Your task to perform on an android device: turn off smart reply in the gmail app Image 0: 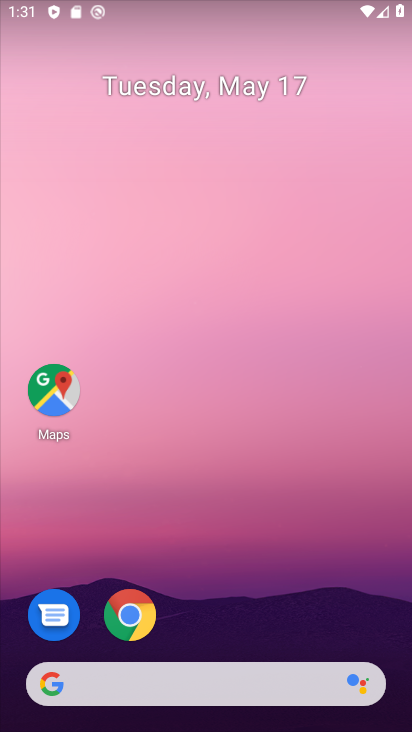
Step 0: drag from (259, 628) to (224, 22)
Your task to perform on an android device: turn off smart reply in the gmail app Image 1: 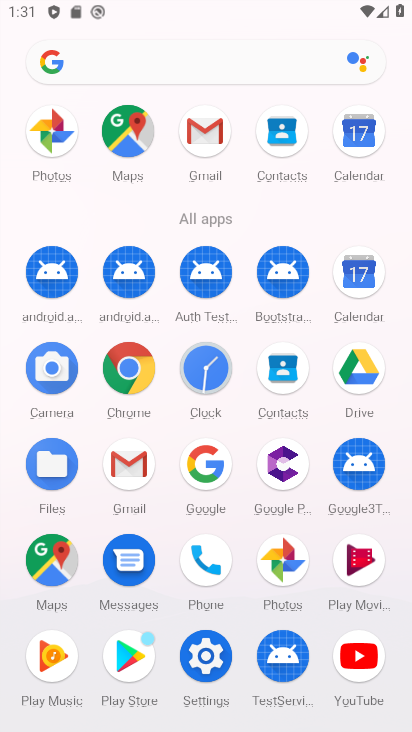
Step 1: click (115, 468)
Your task to perform on an android device: turn off smart reply in the gmail app Image 2: 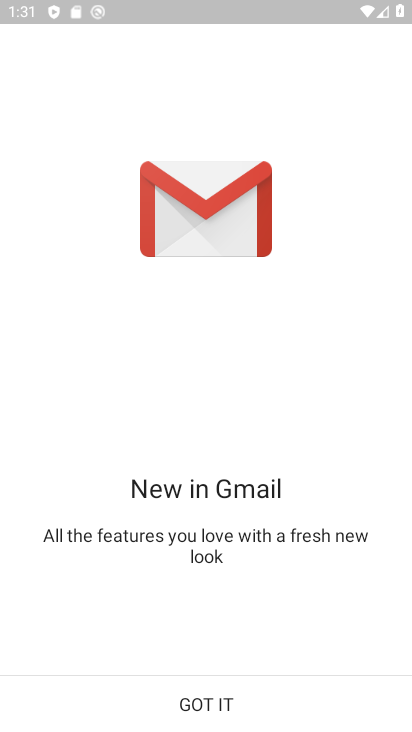
Step 2: click (235, 712)
Your task to perform on an android device: turn off smart reply in the gmail app Image 3: 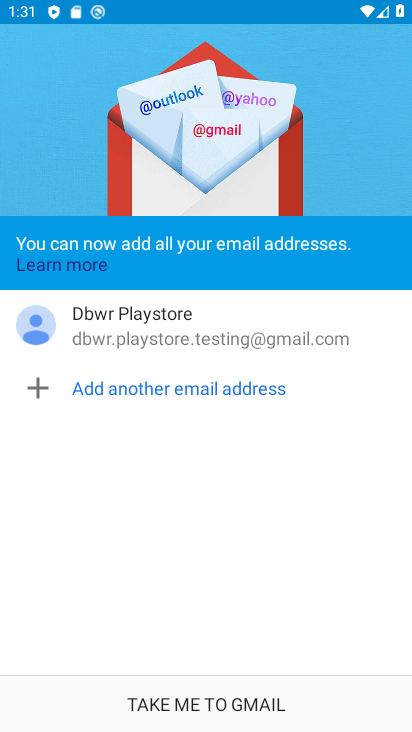
Step 3: click (227, 697)
Your task to perform on an android device: turn off smart reply in the gmail app Image 4: 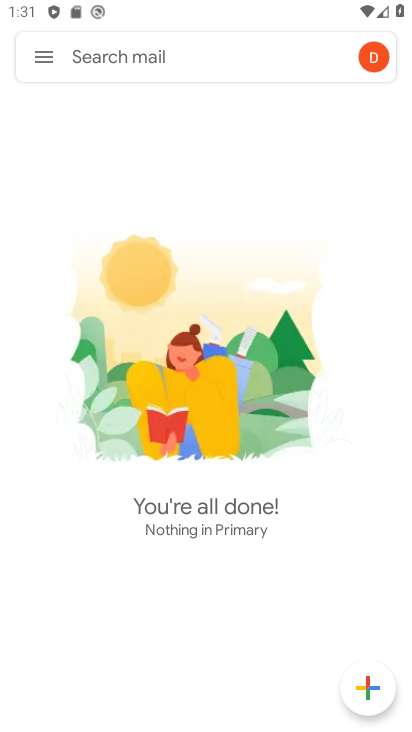
Step 4: click (39, 57)
Your task to perform on an android device: turn off smart reply in the gmail app Image 5: 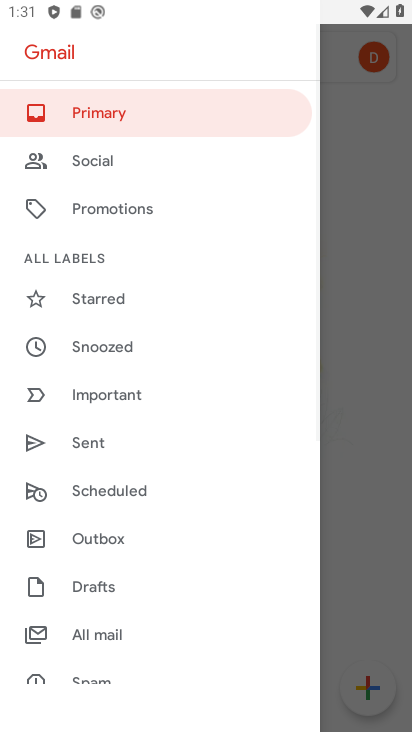
Step 5: drag from (115, 645) to (79, 345)
Your task to perform on an android device: turn off smart reply in the gmail app Image 6: 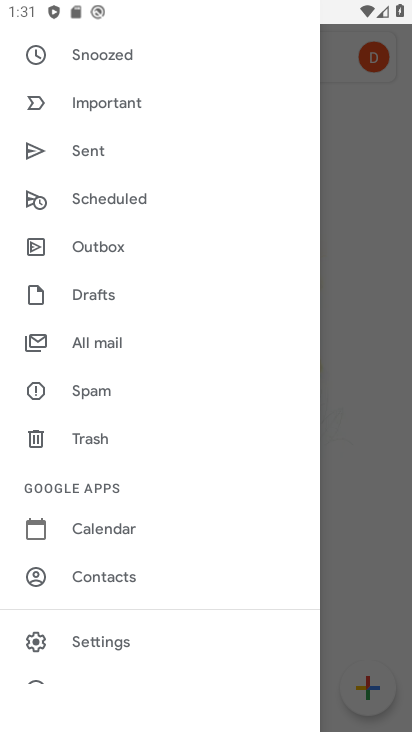
Step 6: click (87, 638)
Your task to perform on an android device: turn off smart reply in the gmail app Image 7: 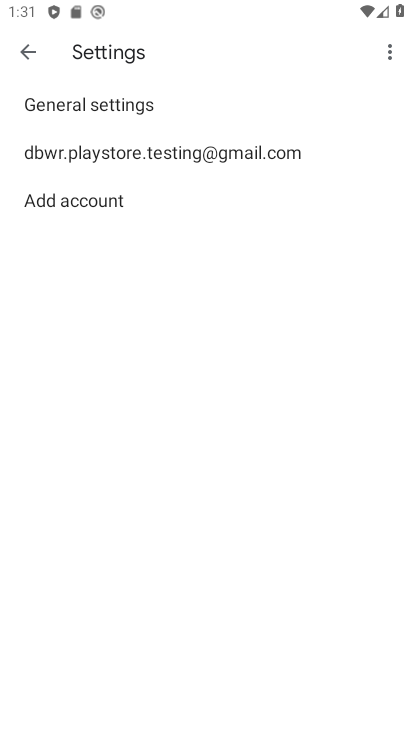
Step 7: click (165, 157)
Your task to perform on an android device: turn off smart reply in the gmail app Image 8: 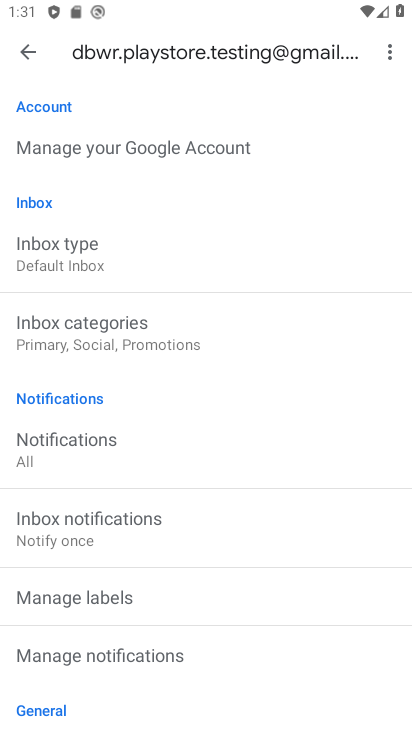
Step 8: drag from (141, 663) to (131, 438)
Your task to perform on an android device: turn off smart reply in the gmail app Image 9: 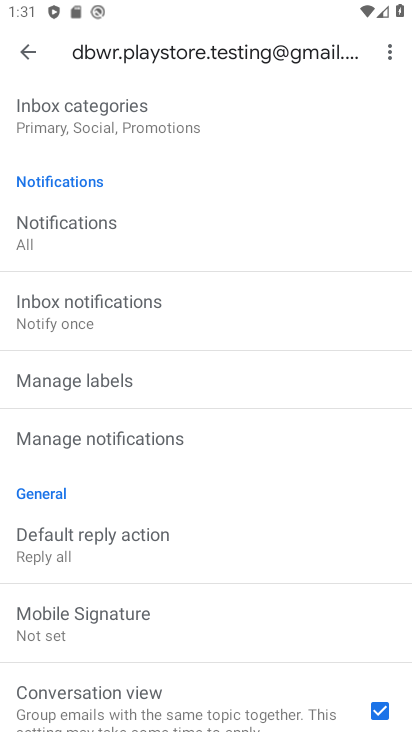
Step 9: drag from (124, 705) to (109, 422)
Your task to perform on an android device: turn off smart reply in the gmail app Image 10: 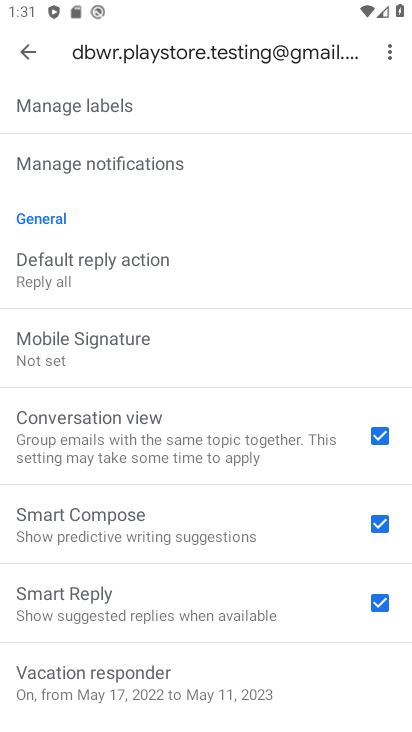
Step 10: click (363, 610)
Your task to perform on an android device: turn off smart reply in the gmail app Image 11: 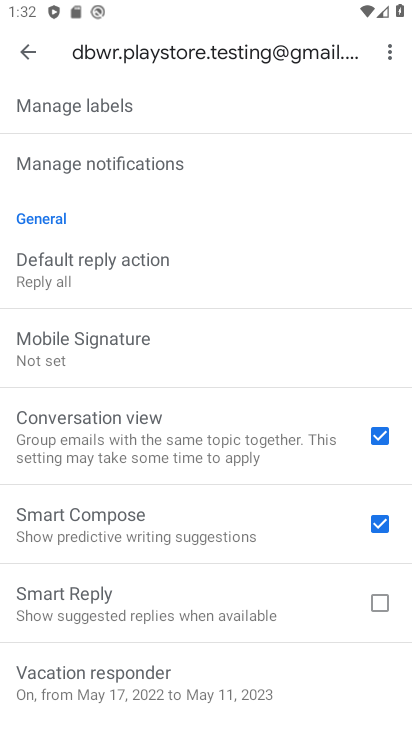
Step 11: task complete